Your task to perform on an android device: Clear all items from cart on bestbuy. Search for razer kraken on bestbuy, select the first entry, add it to the cart, then select checkout. Image 0: 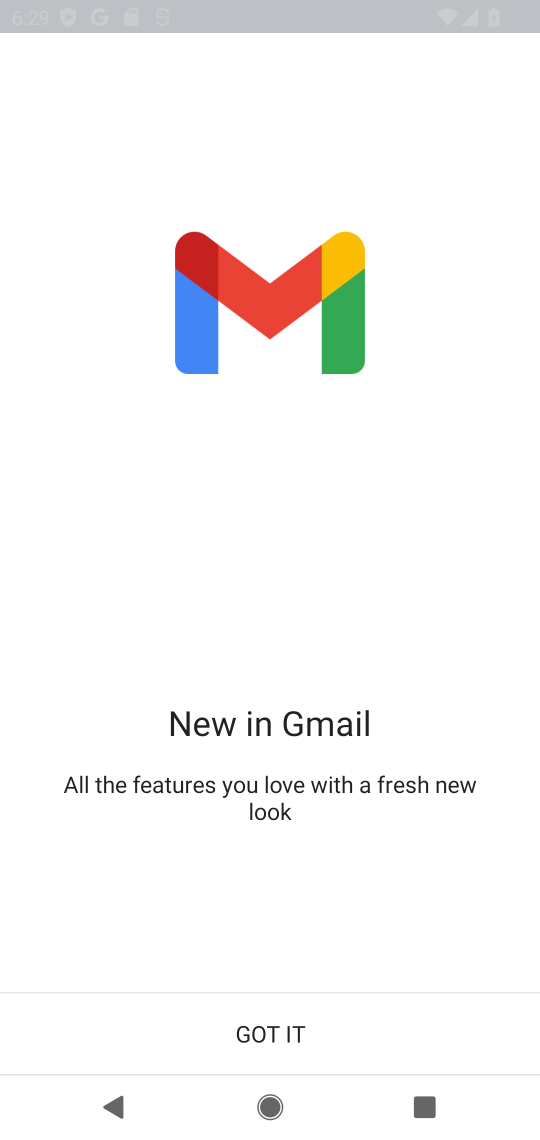
Step 0: click (326, 1001)
Your task to perform on an android device: Clear all items from cart on bestbuy. Search for razer kraken on bestbuy, select the first entry, add it to the cart, then select checkout. Image 1: 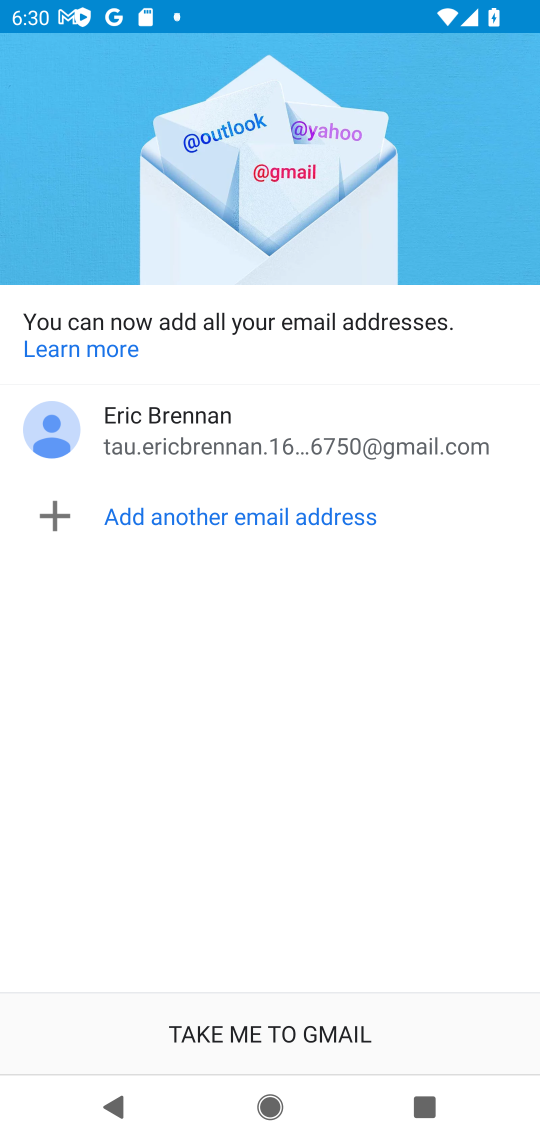
Step 1: press home button
Your task to perform on an android device: Clear all items from cart on bestbuy. Search for razer kraken on bestbuy, select the first entry, add it to the cart, then select checkout. Image 2: 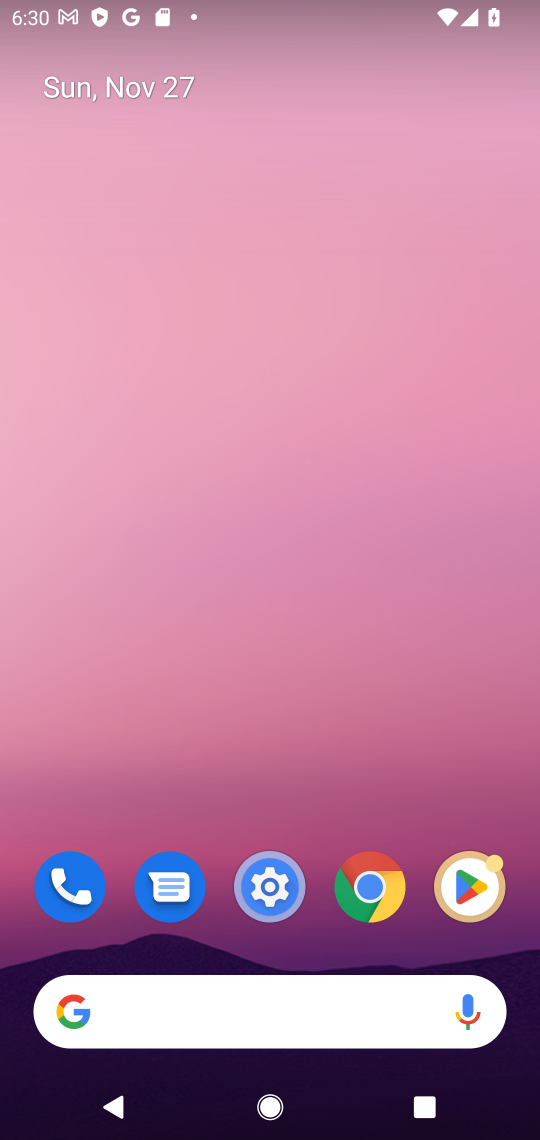
Step 2: click (252, 1008)
Your task to perform on an android device: Clear all items from cart on bestbuy. Search for razer kraken on bestbuy, select the first entry, add it to the cart, then select checkout. Image 3: 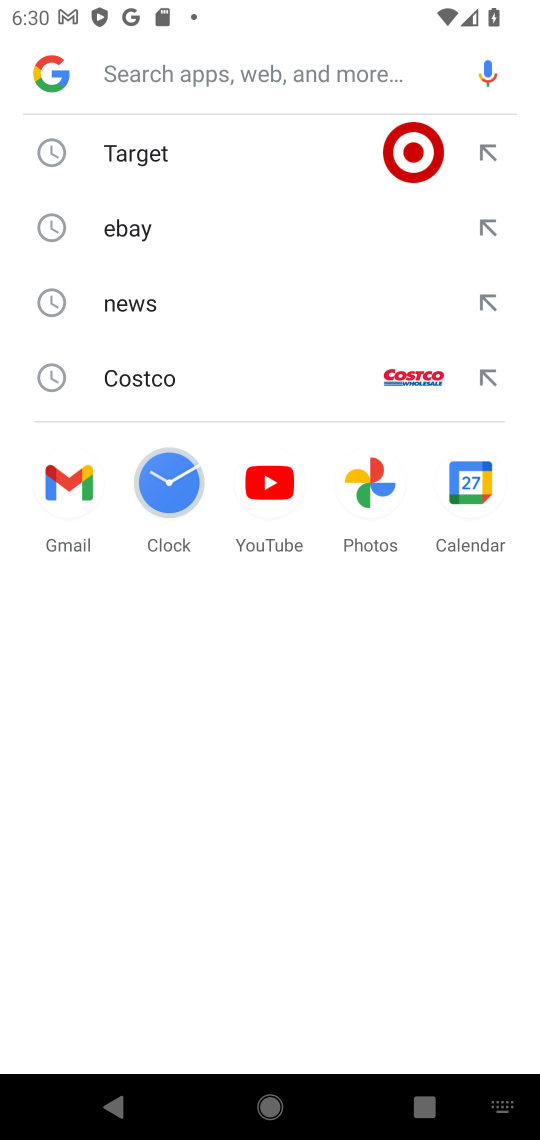
Step 3: type "bestbuy"
Your task to perform on an android device: Clear all items from cart on bestbuy. Search for razer kraken on bestbuy, select the first entry, add it to the cart, then select checkout. Image 4: 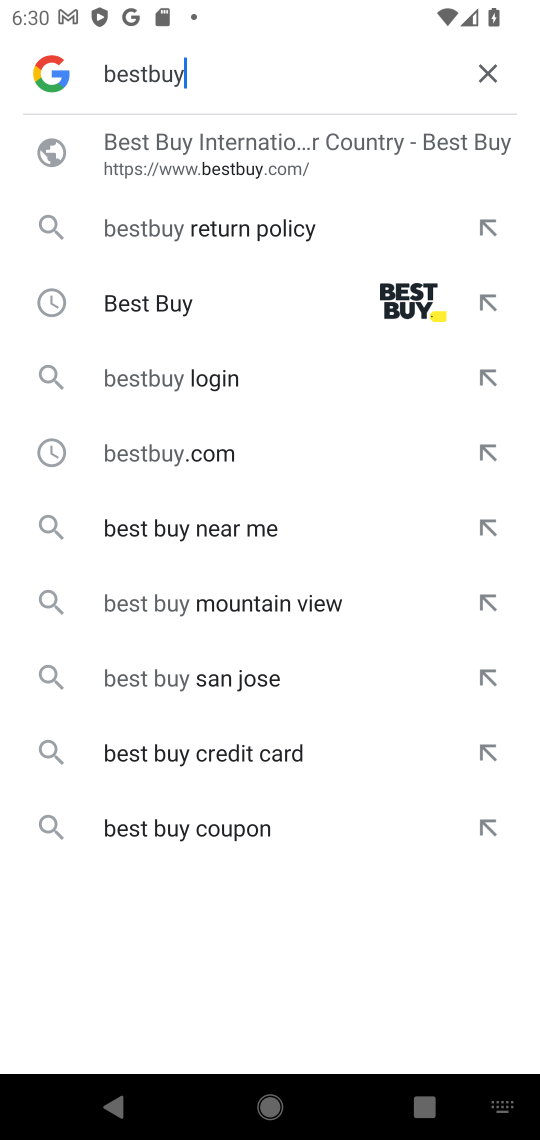
Step 4: click (268, 292)
Your task to perform on an android device: Clear all items from cart on bestbuy. Search for razer kraken on bestbuy, select the first entry, add it to the cart, then select checkout. Image 5: 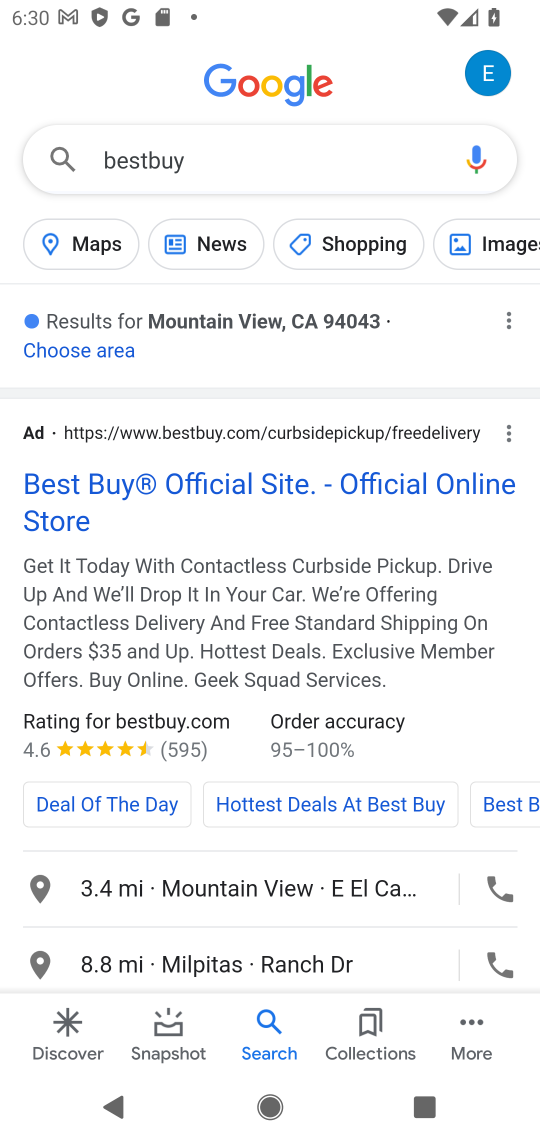
Step 5: click (245, 499)
Your task to perform on an android device: Clear all items from cart on bestbuy. Search for razer kraken on bestbuy, select the first entry, add it to the cart, then select checkout. Image 6: 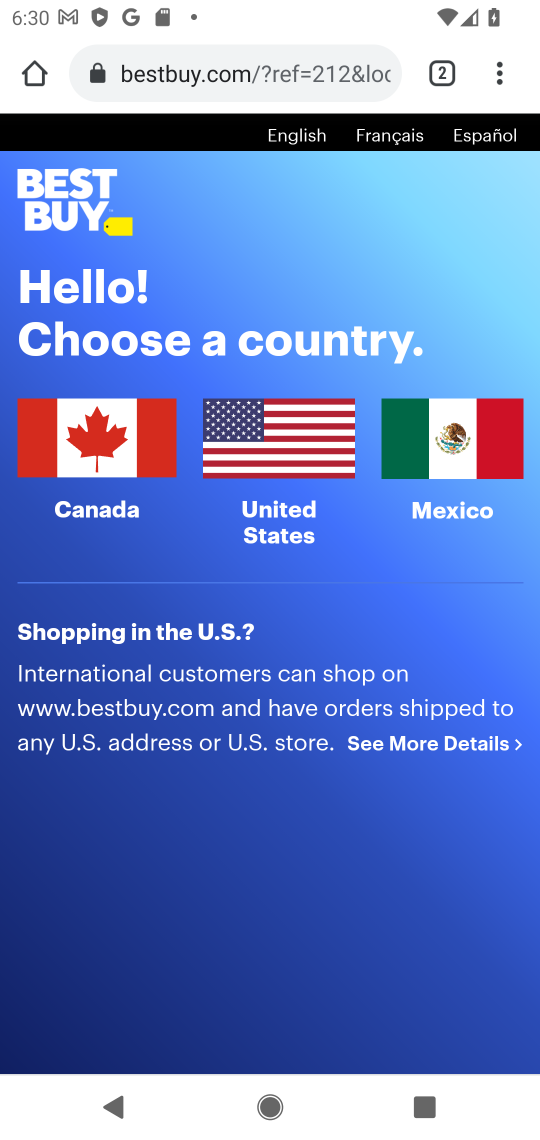
Step 6: click (142, 490)
Your task to perform on an android device: Clear all items from cart on bestbuy. Search for razer kraken on bestbuy, select the first entry, add it to the cart, then select checkout. Image 7: 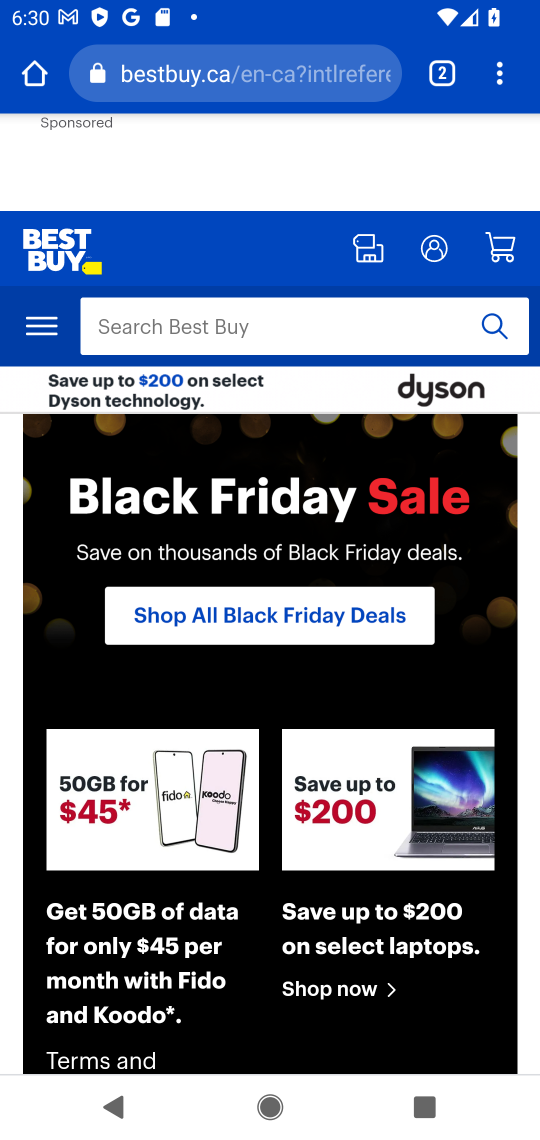
Step 7: click (218, 319)
Your task to perform on an android device: Clear all items from cart on bestbuy. Search for razer kraken on bestbuy, select the first entry, add it to the cart, then select checkout. Image 8: 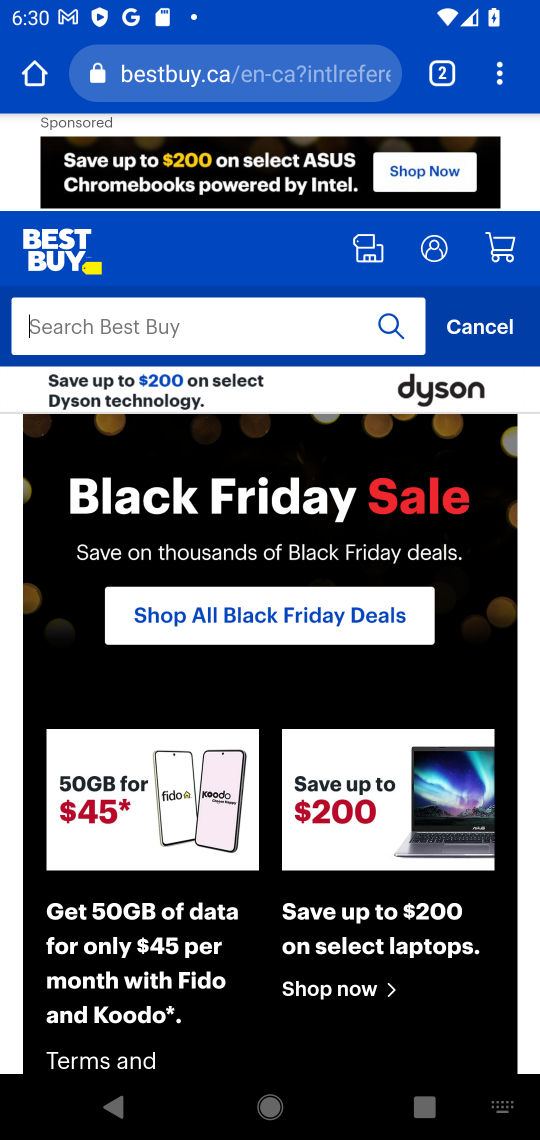
Step 8: type "razer karken"
Your task to perform on an android device: Clear all items from cart on bestbuy. Search for razer kraken on bestbuy, select the first entry, add it to the cart, then select checkout. Image 9: 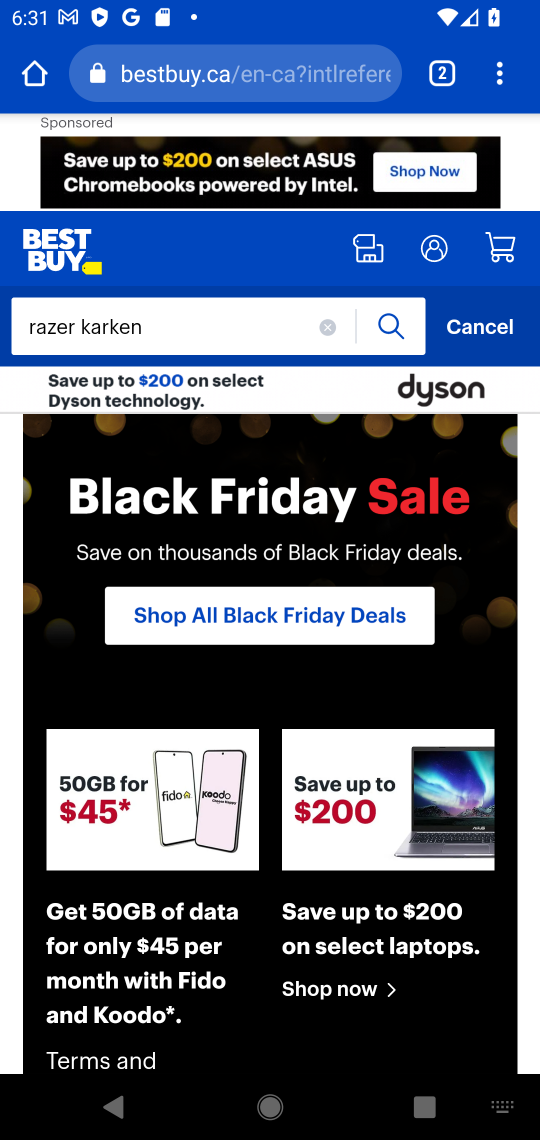
Step 9: click (385, 325)
Your task to perform on an android device: Clear all items from cart on bestbuy. Search for razer kraken on bestbuy, select the first entry, add it to the cart, then select checkout. Image 10: 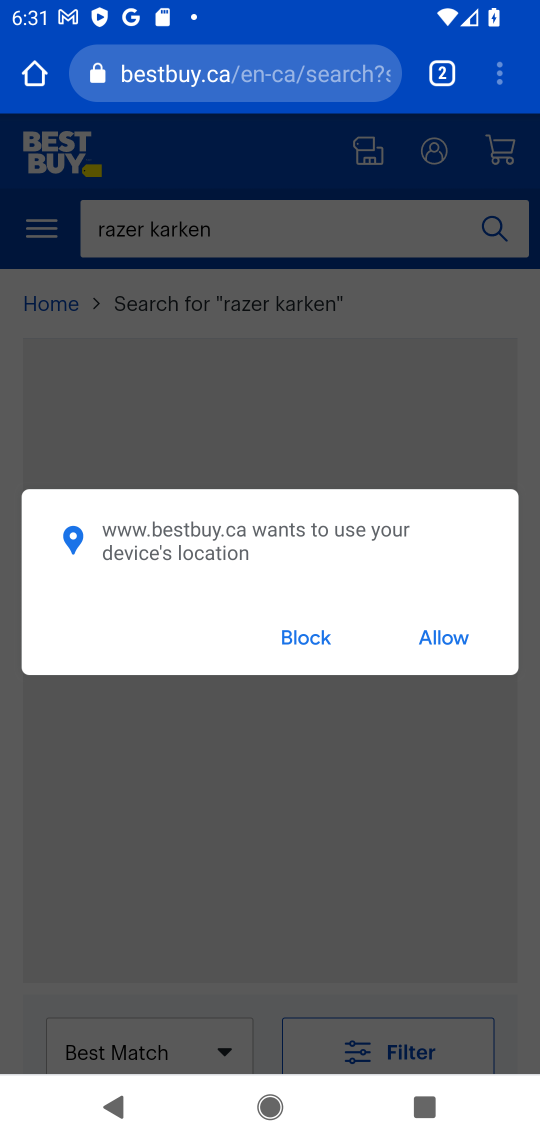
Step 10: click (293, 648)
Your task to perform on an android device: Clear all items from cart on bestbuy. Search for razer kraken on bestbuy, select the first entry, add it to the cart, then select checkout. Image 11: 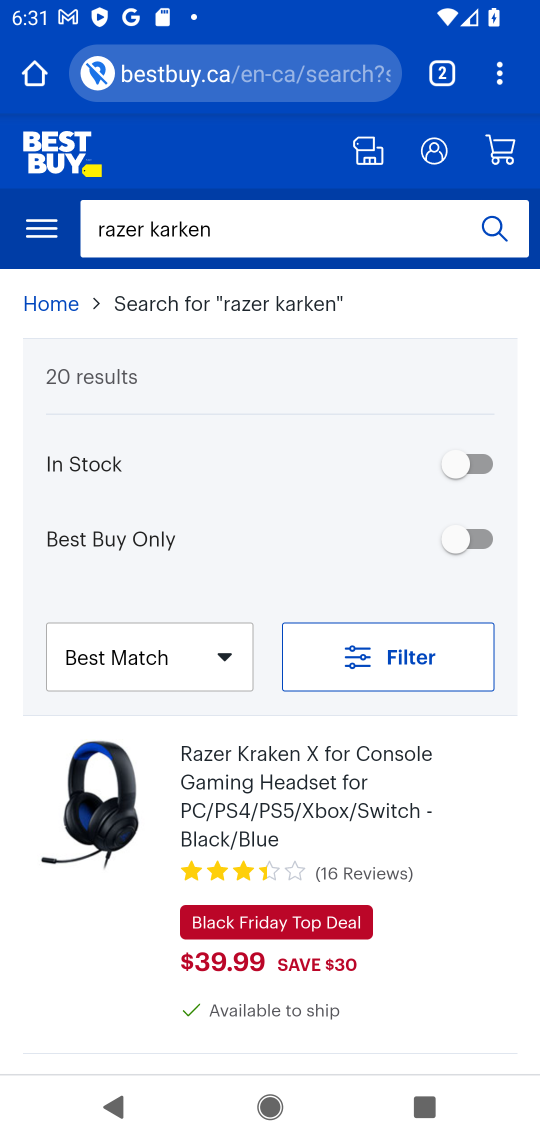
Step 11: task complete